Your task to perform on an android device: See recent photos Image 0: 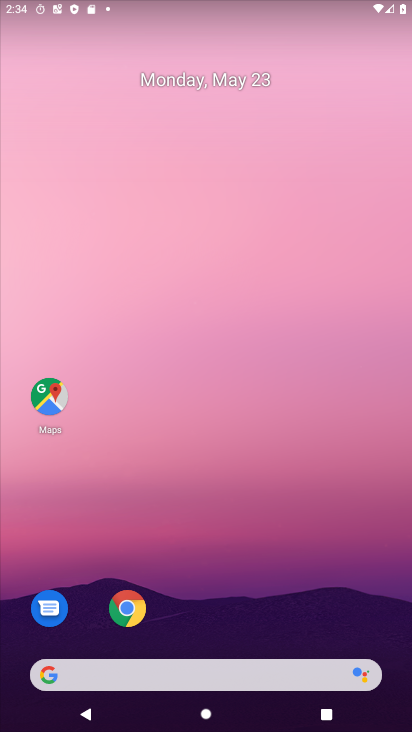
Step 0: drag from (203, 605) to (256, 17)
Your task to perform on an android device: See recent photos Image 1: 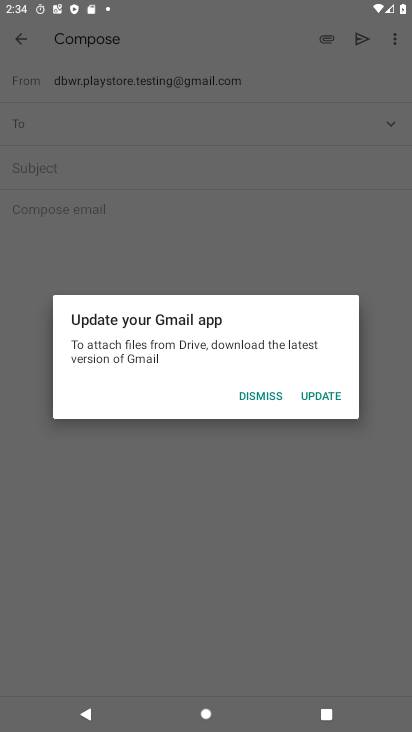
Step 1: press home button
Your task to perform on an android device: See recent photos Image 2: 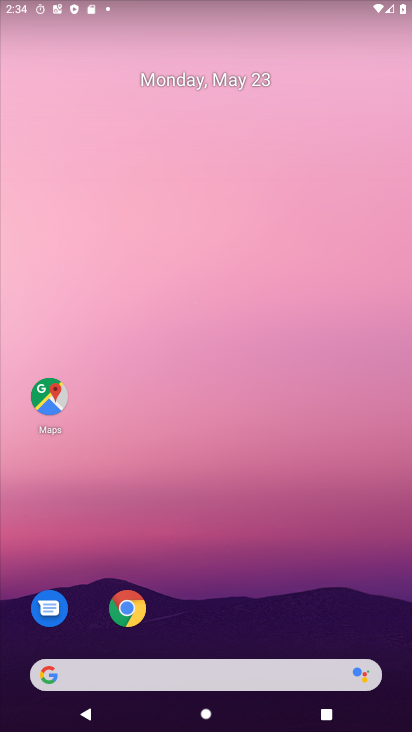
Step 2: drag from (210, 636) to (207, 0)
Your task to perform on an android device: See recent photos Image 3: 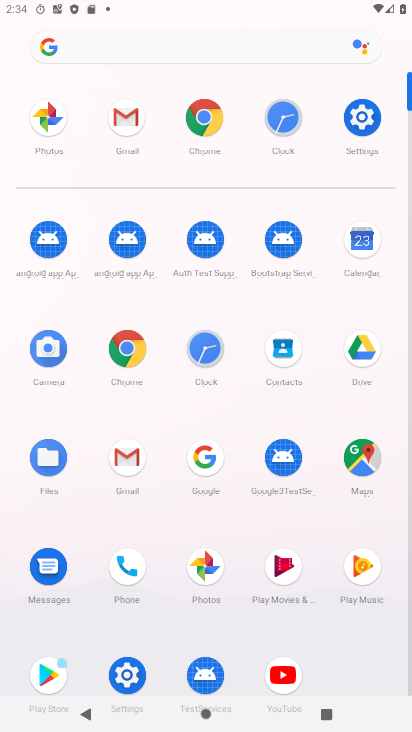
Step 3: click (194, 568)
Your task to perform on an android device: See recent photos Image 4: 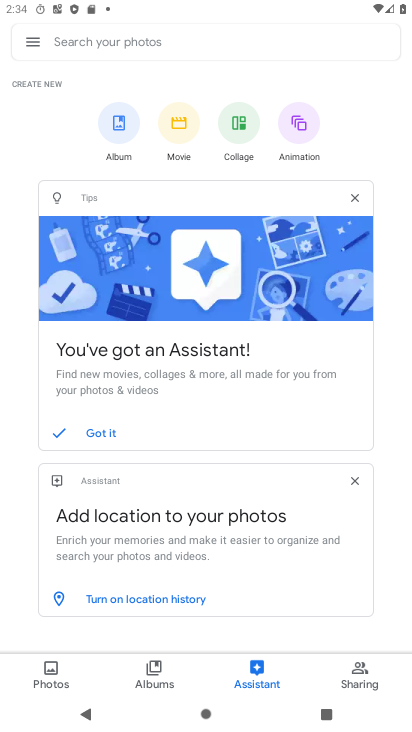
Step 4: click (52, 664)
Your task to perform on an android device: See recent photos Image 5: 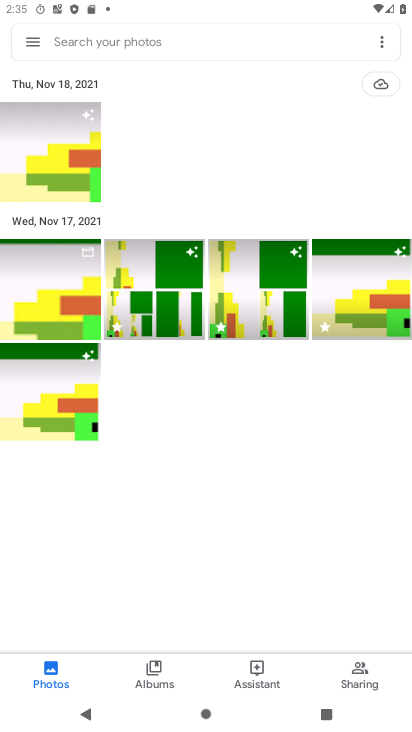
Step 5: task complete